Your task to perform on an android device: check android version Image 0: 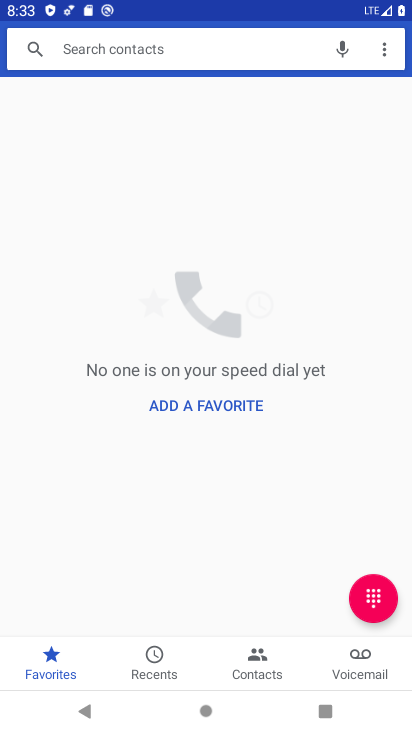
Step 0: press home button
Your task to perform on an android device: check android version Image 1: 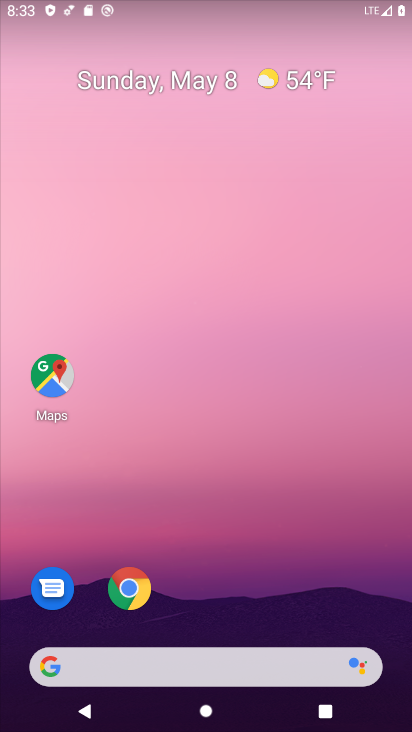
Step 1: drag from (15, 703) to (282, 184)
Your task to perform on an android device: check android version Image 2: 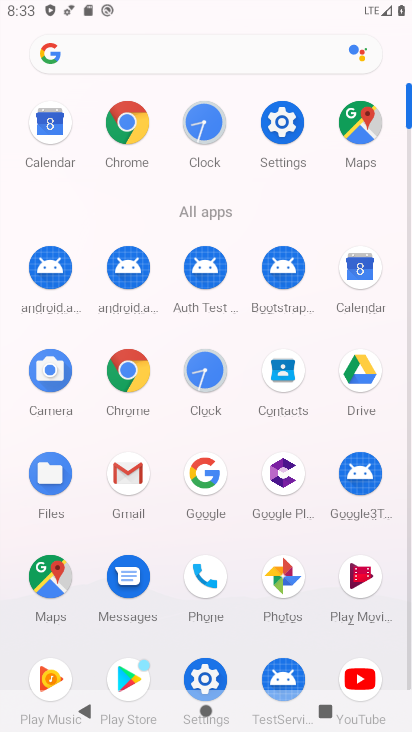
Step 2: click (196, 671)
Your task to perform on an android device: check android version Image 3: 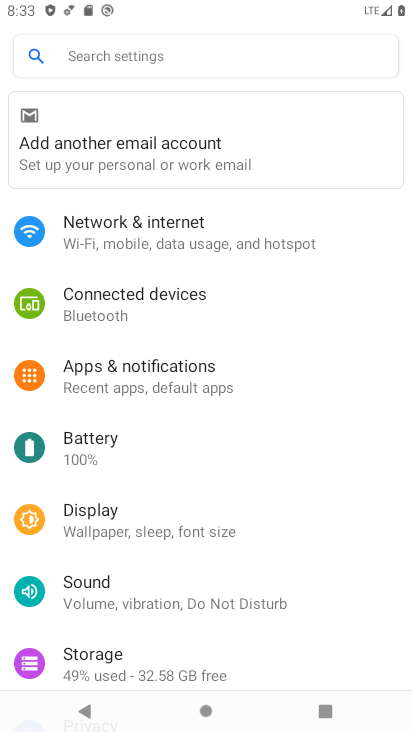
Step 3: drag from (196, 670) to (301, 184)
Your task to perform on an android device: check android version Image 4: 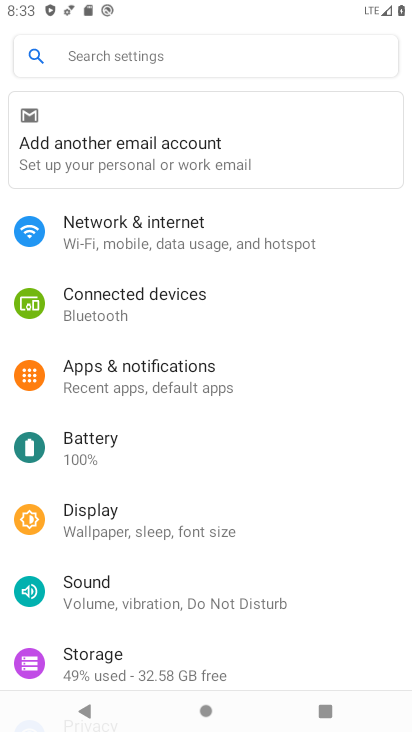
Step 4: drag from (1, 677) to (239, 186)
Your task to perform on an android device: check android version Image 5: 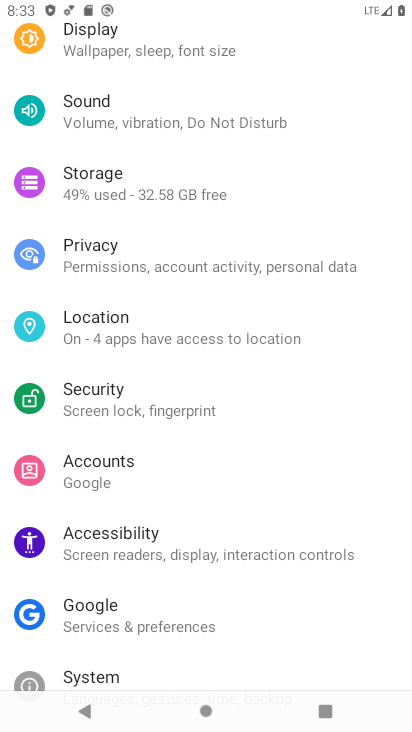
Step 5: drag from (139, 616) to (296, 261)
Your task to perform on an android device: check android version Image 6: 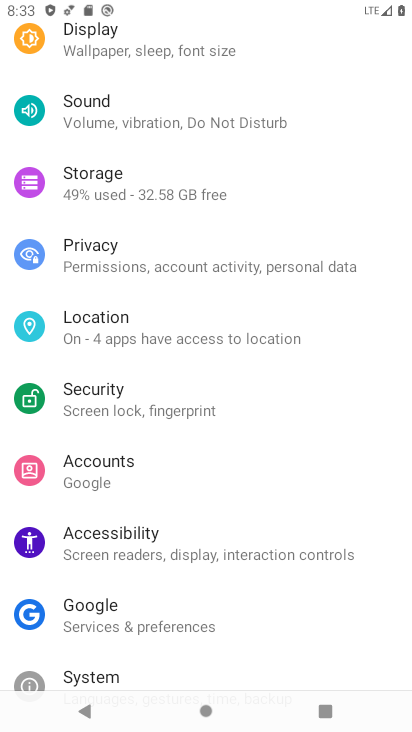
Step 6: click (71, 675)
Your task to perform on an android device: check android version Image 7: 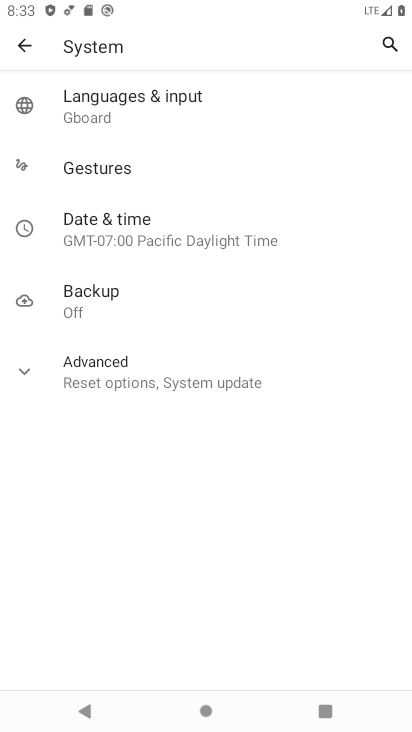
Step 7: press back button
Your task to perform on an android device: check android version Image 8: 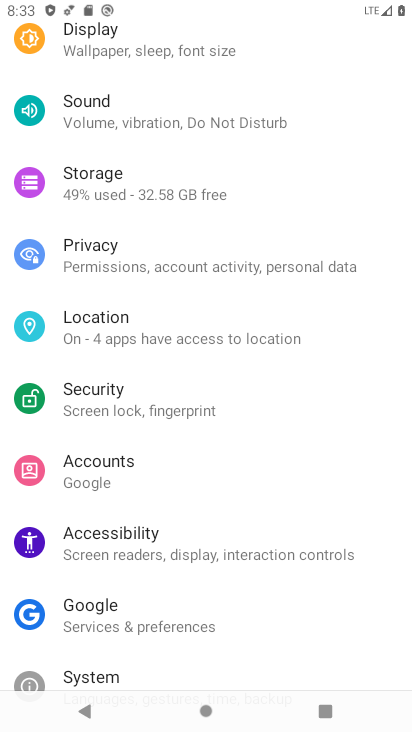
Step 8: drag from (239, 582) to (310, 176)
Your task to perform on an android device: check android version Image 9: 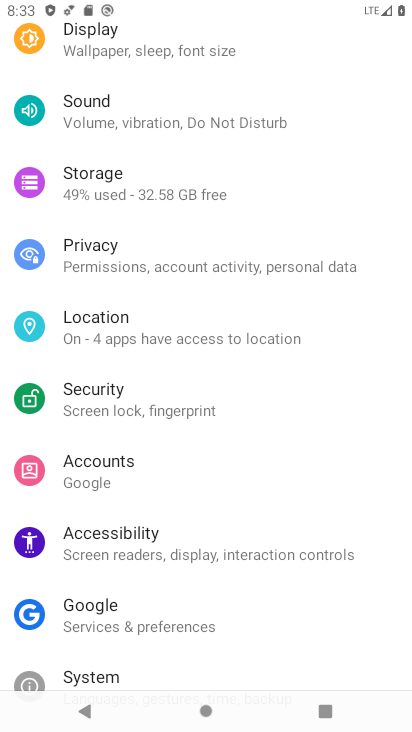
Step 9: drag from (97, 615) to (229, 197)
Your task to perform on an android device: check android version Image 10: 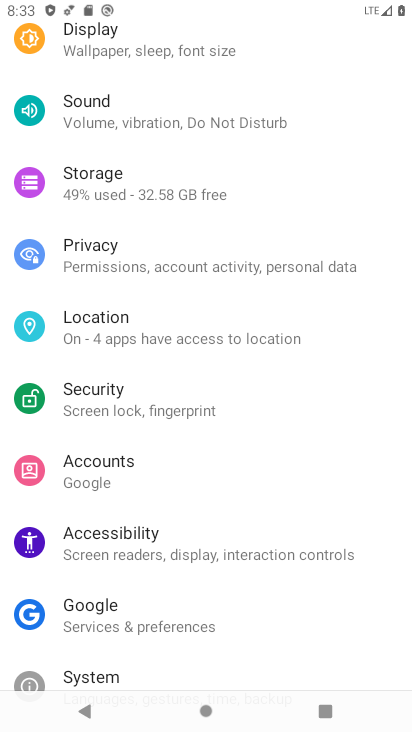
Step 10: drag from (100, 614) to (260, 197)
Your task to perform on an android device: check android version Image 11: 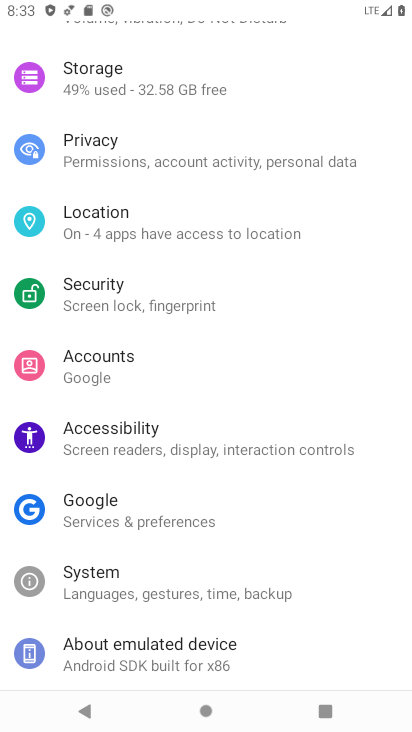
Step 11: click (144, 650)
Your task to perform on an android device: check android version Image 12: 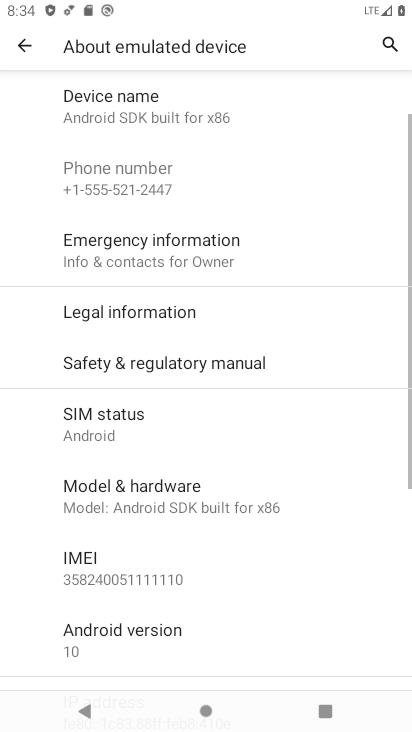
Step 12: click (145, 644)
Your task to perform on an android device: check android version Image 13: 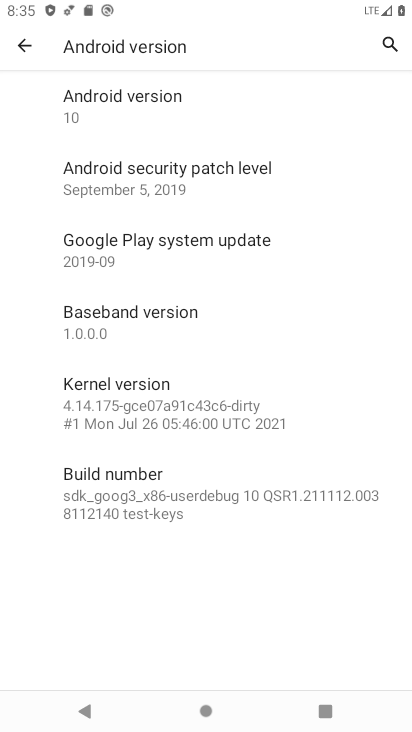
Step 13: task complete